Your task to perform on an android device: turn off sleep mode Image 0: 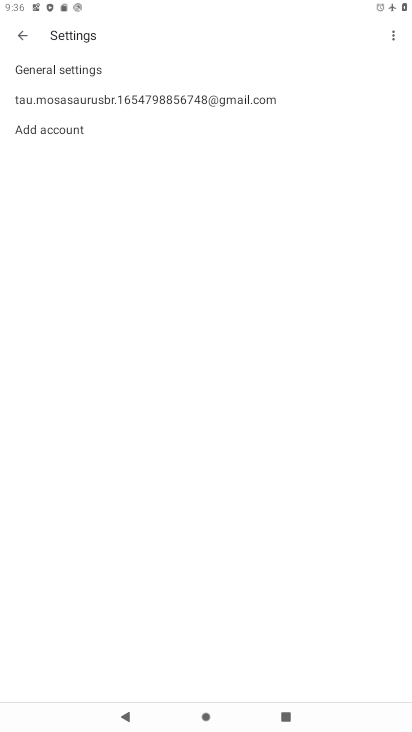
Step 0: press home button
Your task to perform on an android device: turn off sleep mode Image 1: 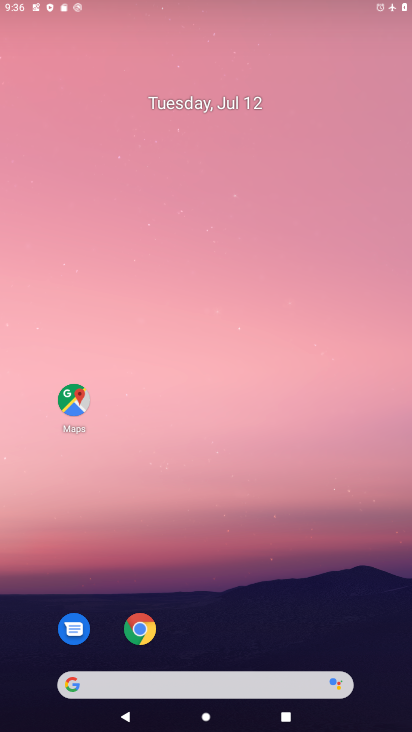
Step 1: drag from (202, 625) to (202, 226)
Your task to perform on an android device: turn off sleep mode Image 2: 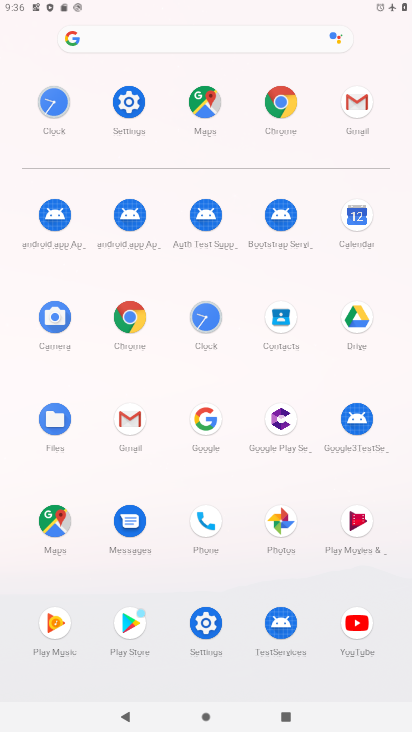
Step 2: click (139, 77)
Your task to perform on an android device: turn off sleep mode Image 3: 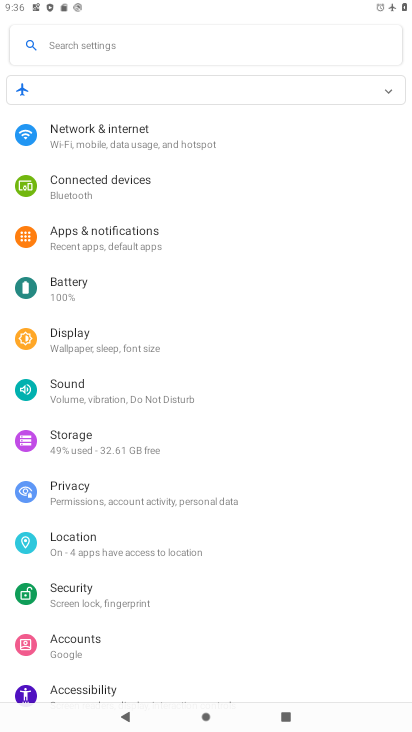
Step 3: task complete